Your task to perform on an android device: turn off wifi Image 0: 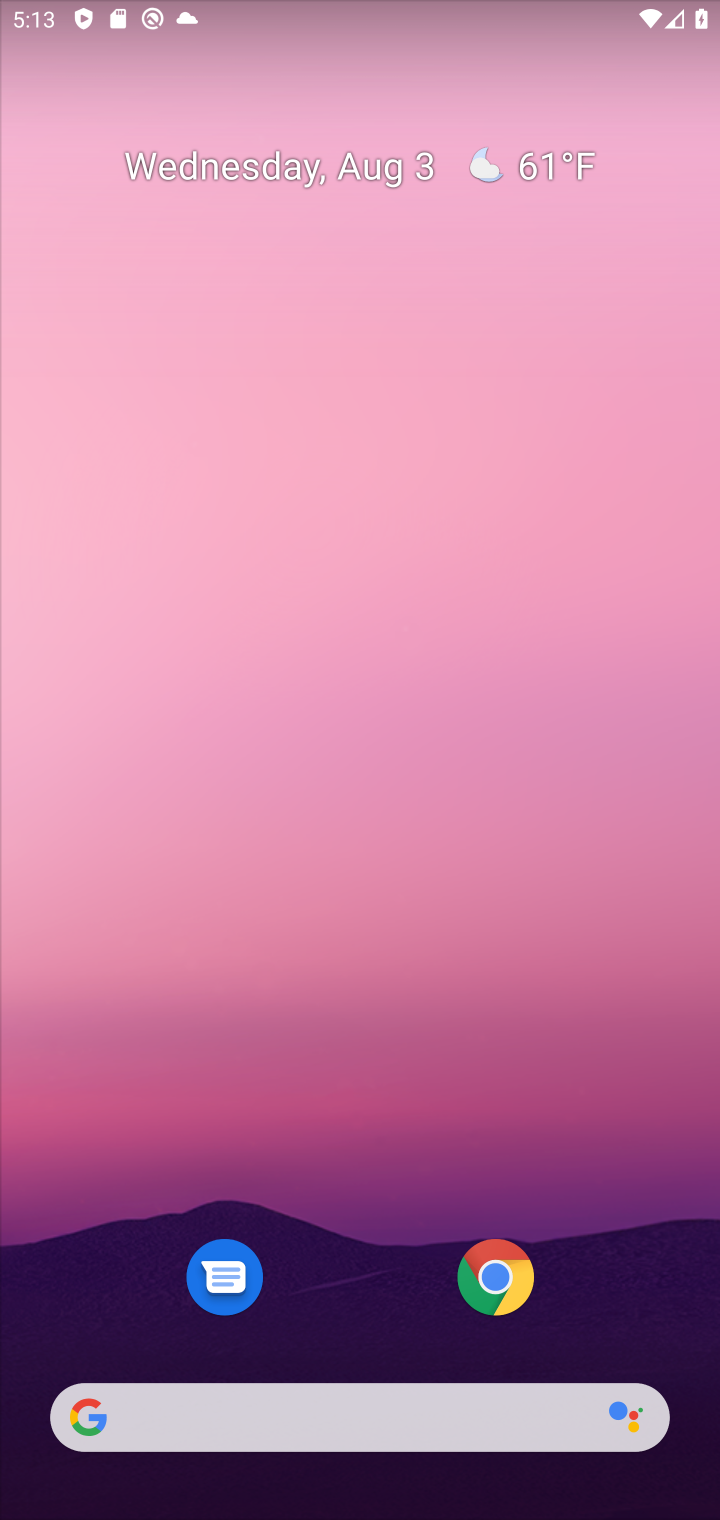
Step 0: drag from (197, 9) to (307, 1049)
Your task to perform on an android device: turn off wifi Image 1: 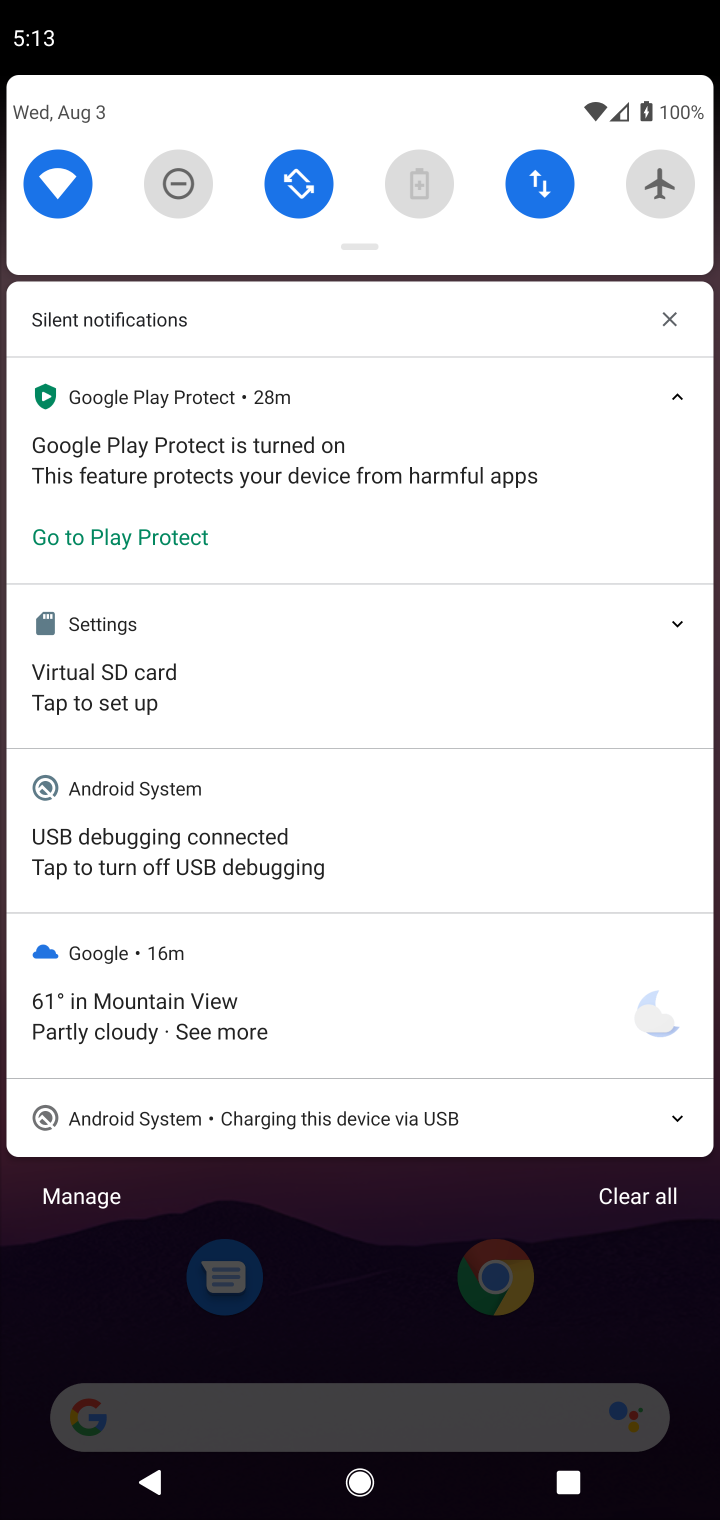
Step 1: click (67, 184)
Your task to perform on an android device: turn off wifi Image 2: 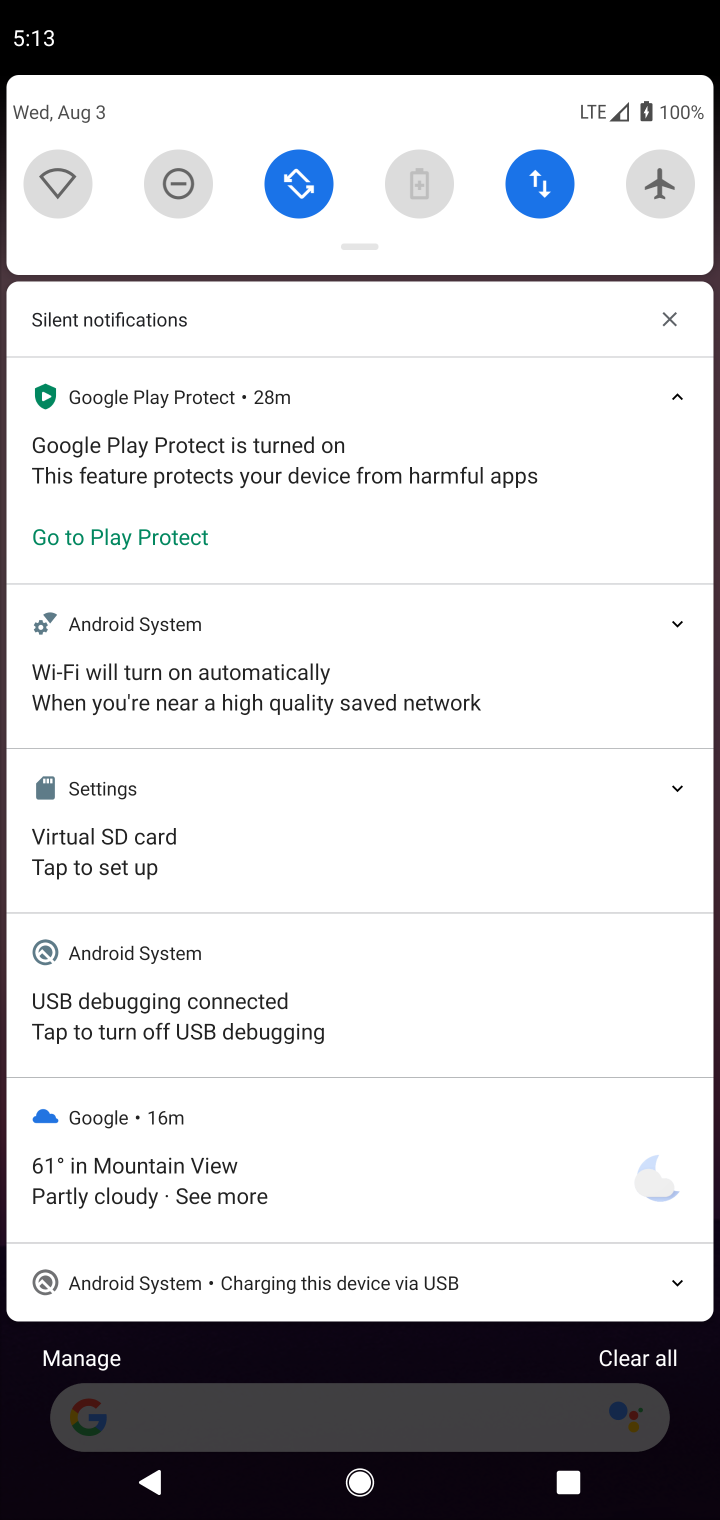
Step 2: task complete